Your task to perform on an android device: What is the news today? Image 0: 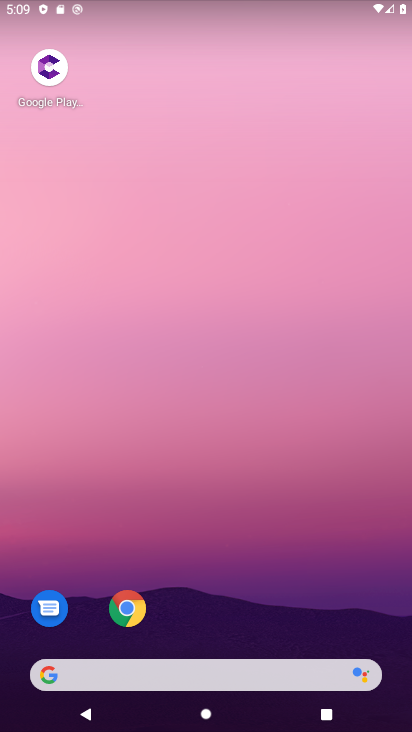
Step 0: drag from (178, 655) to (117, 204)
Your task to perform on an android device: What is the news today? Image 1: 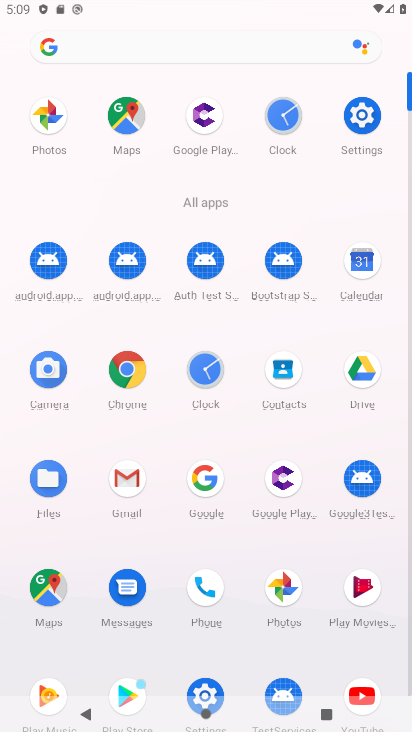
Step 1: click (206, 476)
Your task to perform on an android device: What is the news today? Image 2: 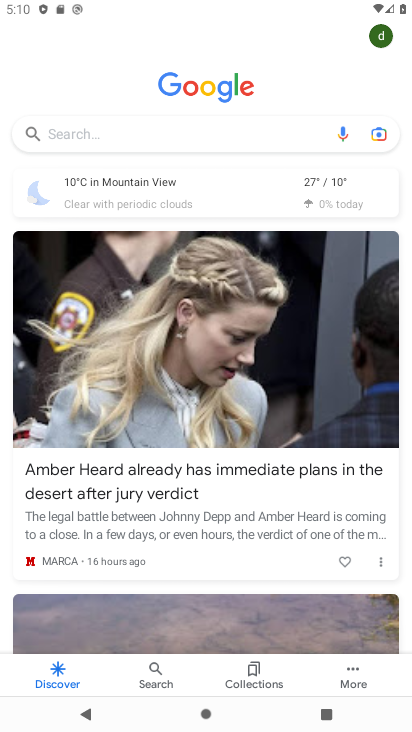
Step 2: type "what is the news today?"
Your task to perform on an android device: What is the news today? Image 3: 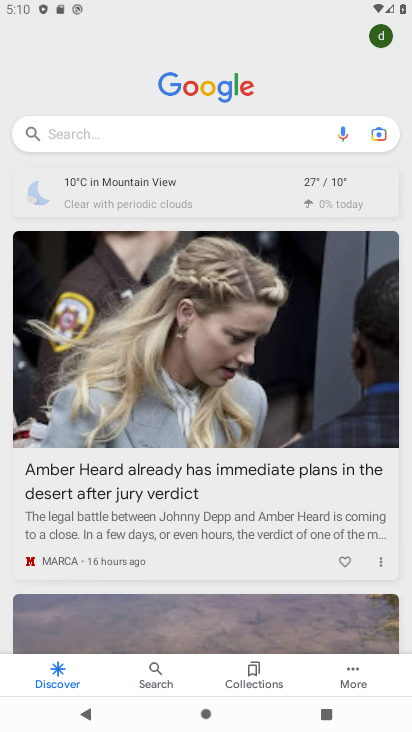
Step 3: click (199, 137)
Your task to perform on an android device: What is the news today? Image 4: 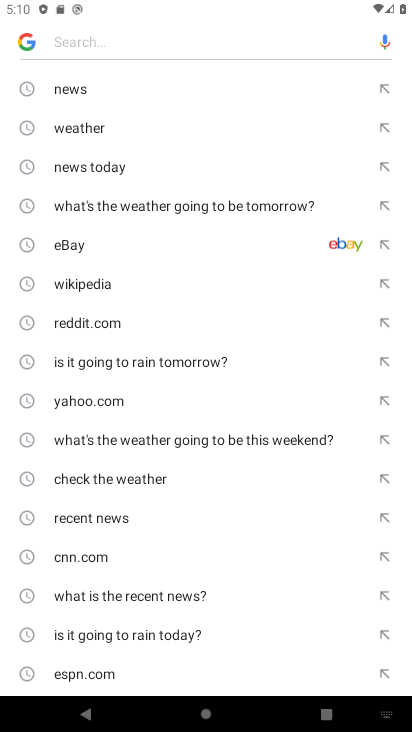
Step 4: drag from (93, 645) to (137, 273)
Your task to perform on an android device: What is the news today? Image 5: 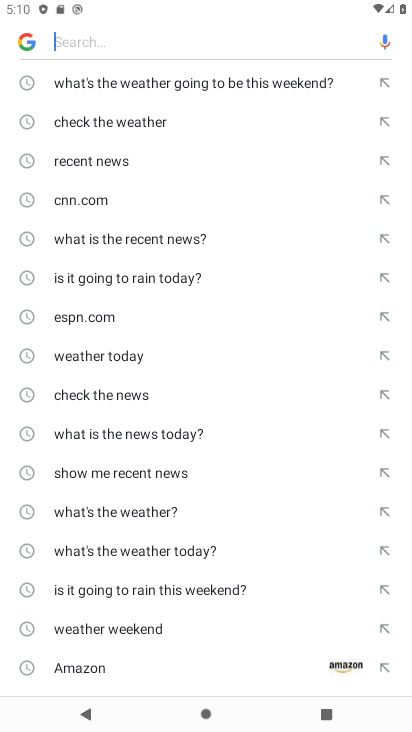
Step 5: click (107, 426)
Your task to perform on an android device: What is the news today? Image 6: 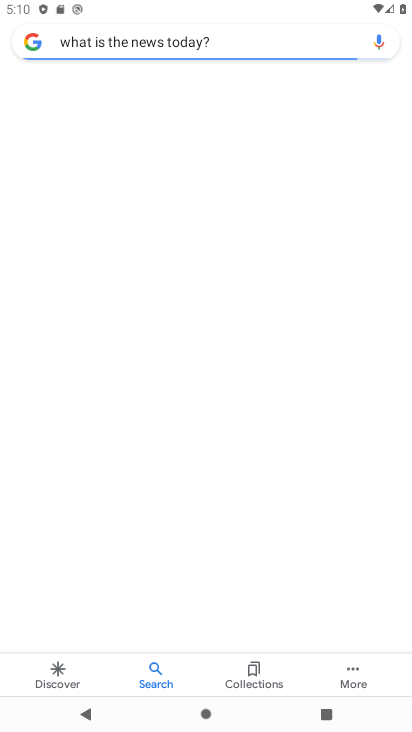
Step 6: task complete